Your task to perform on an android device: What's the weather going to be tomorrow? Image 0: 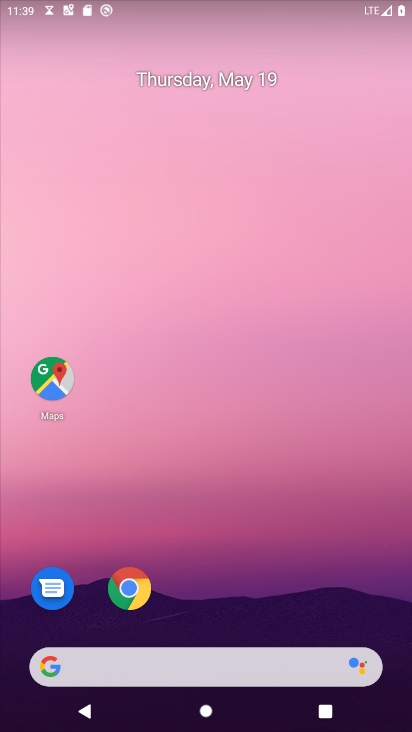
Step 0: drag from (218, 401) to (153, 38)
Your task to perform on an android device: What's the weather going to be tomorrow? Image 1: 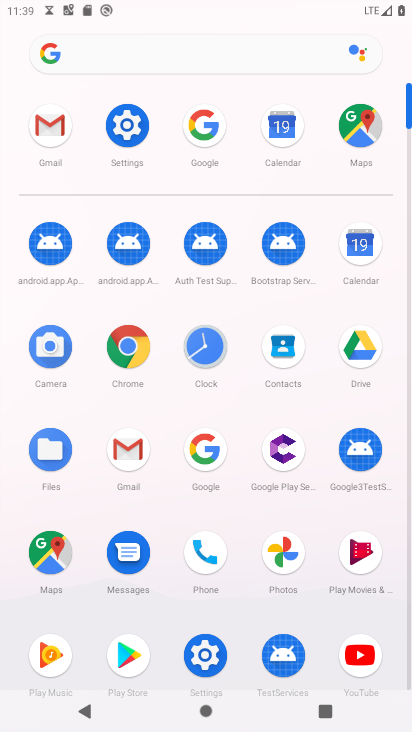
Step 1: click (207, 450)
Your task to perform on an android device: What's the weather going to be tomorrow? Image 2: 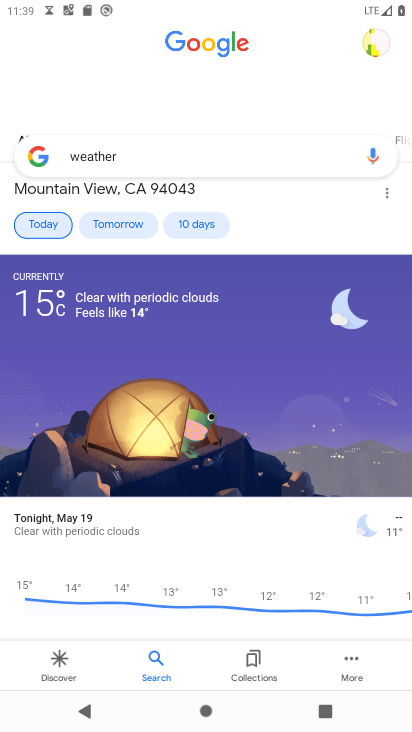
Step 2: click (110, 213)
Your task to perform on an android device: What's the weather going to be tomorrow? Image 3: 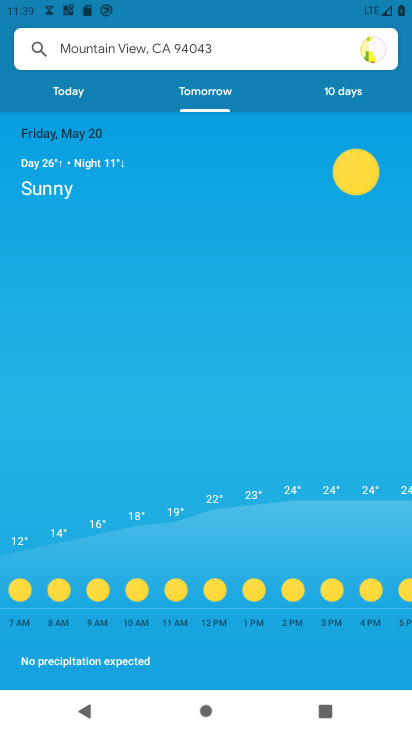
Step 3: task complete